Your task to perform on an android device: turn pop-ups off in chrome Image 0: 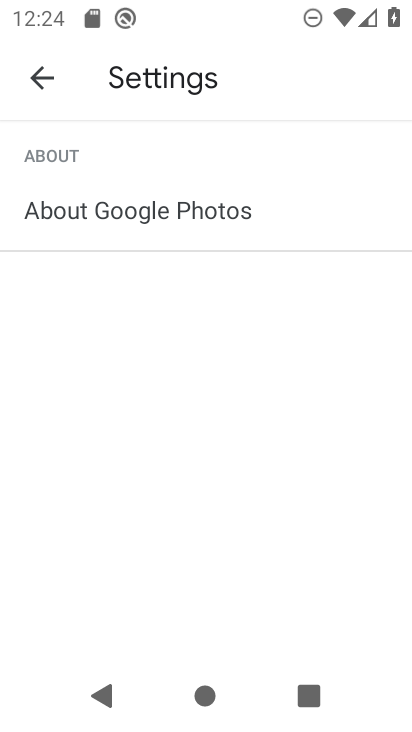
Step 0: press back button
Your task to perform on an android device: turn pop-ups off in chrome Image 1: 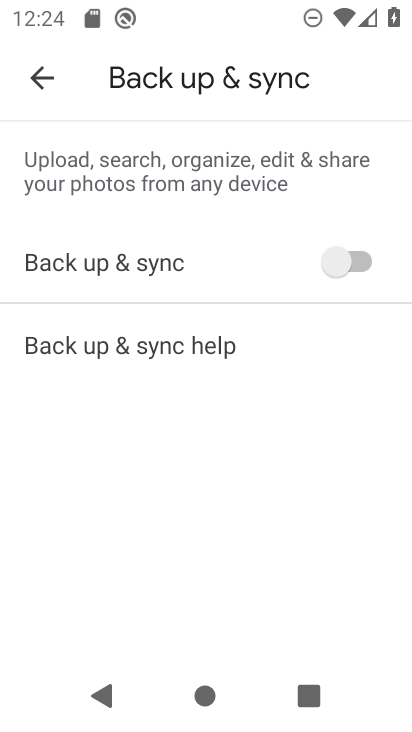
Step 1: press back button
Your task to perform on an android device: turn pop-ups off in chrome Image 2: 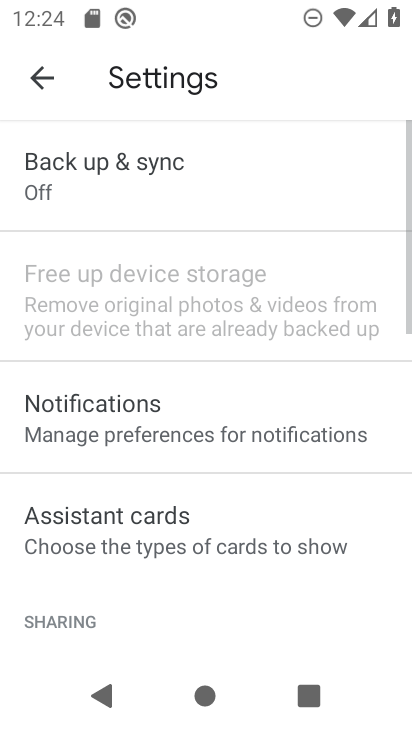
Step 2: press back button
Your task to perform on an android device: turn pop-ups off in chrome Image 3: 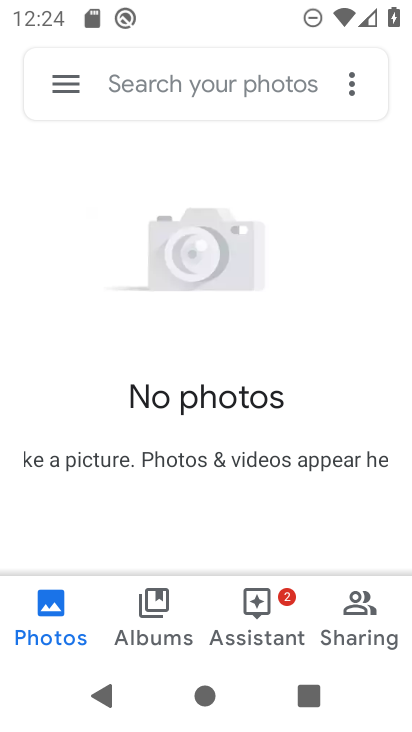
Step 3: press back button
Your task to perform on an android device: turn pop-ups off in chrome Image 4: 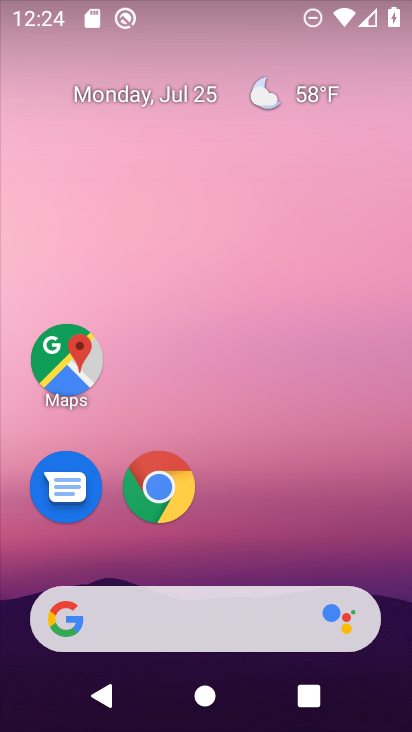
Step 4: click (162, 489)
Your task to perform on an android device: turn pop-ups off in chrome Image 5: 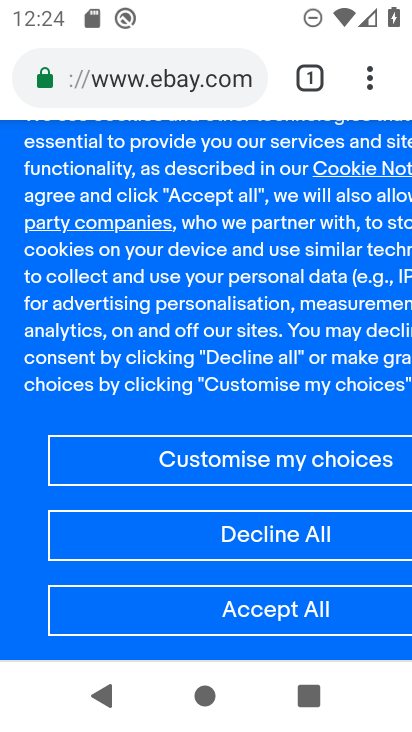
Step 5: drag from (374, 78) to (98, 548)
Your task to perform on an android device: turn pop-ups off in chrome Image 6: 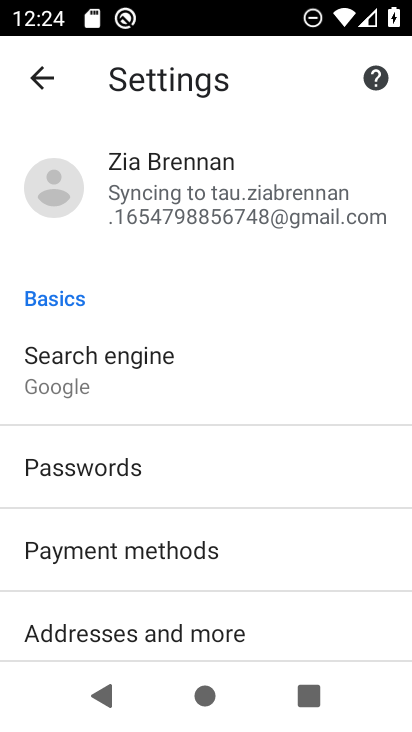
Step 6: drag from (120, 642) to (250, 140)
Your task to perform on an android device: turn pop-ups off in chrome Image 7: 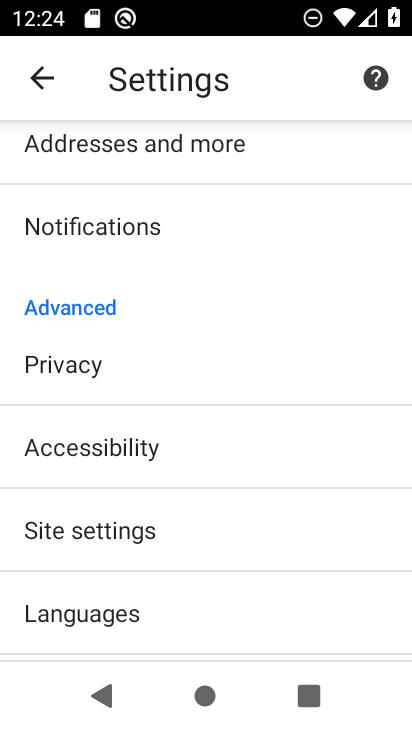
Step 7: click (113, 532)
Your task to perform on an android device: turn pop-ups off in chrome Image 8: 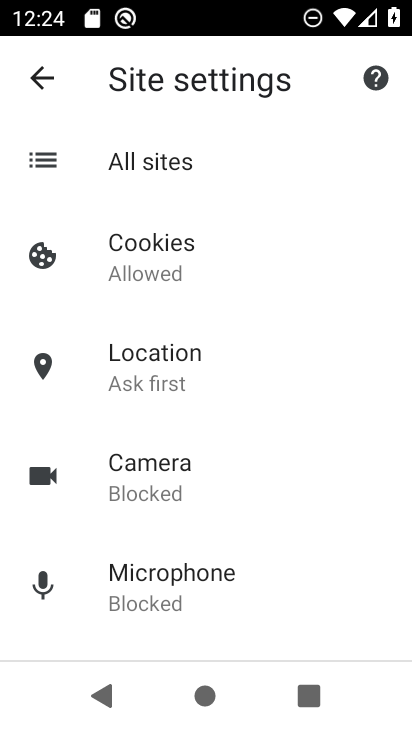
Step 8: drag from (164, 536) to (240, 7)
Your task to perform on an android device: turn pop-ups off in chrome Image 9: 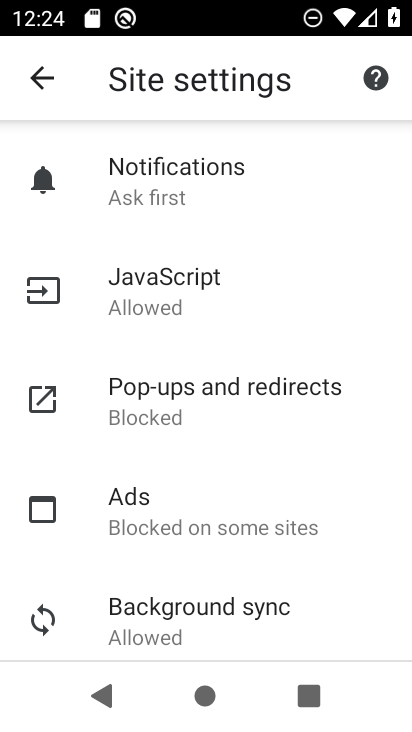
Step 9: click (157, 387)
Your task to perform on an android device: turn pop-ups off in chrome Image 10: 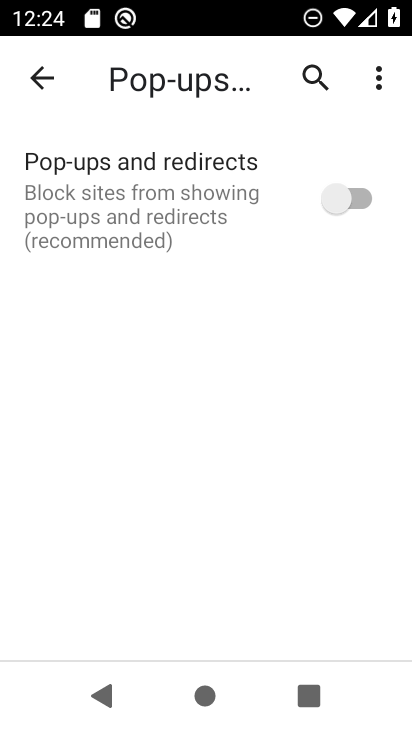
Step 10: task complete